Your task to perform on an android device: Play the last video I watched on Youtube Image 0: 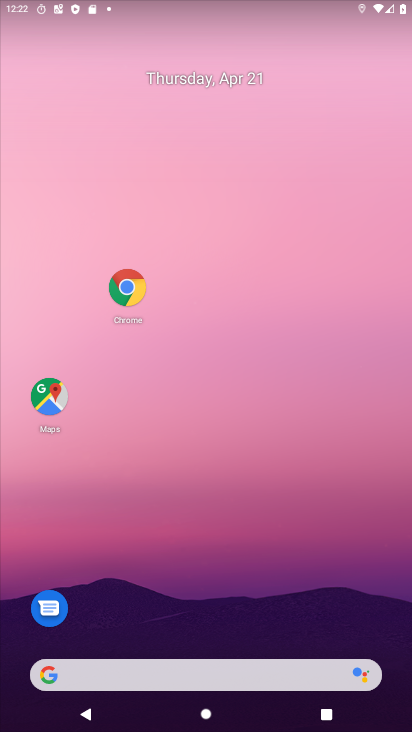
Step 0: drag from (216, 380) to (150, 74)
Your task to perform on an android device: Play the last video I watched on Youtube Image 1: 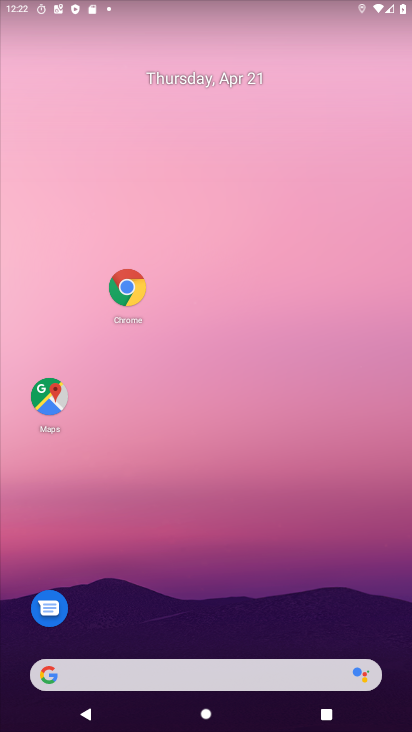
Step 1: drag from (337, 642) to (352, 28)
Your task to perform on an android device: Play the last video I watched on Youtube Image 2: 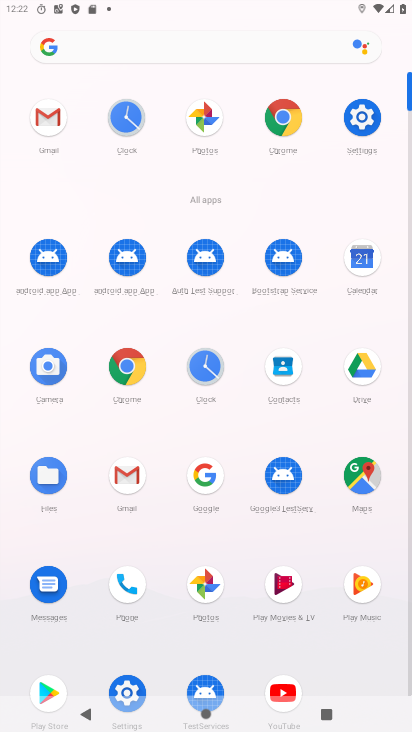
Step 2: drag from (321, 652) to (326, 453)
Your task to perform on an android device: Play the last video I watched on Youtube Image 3: 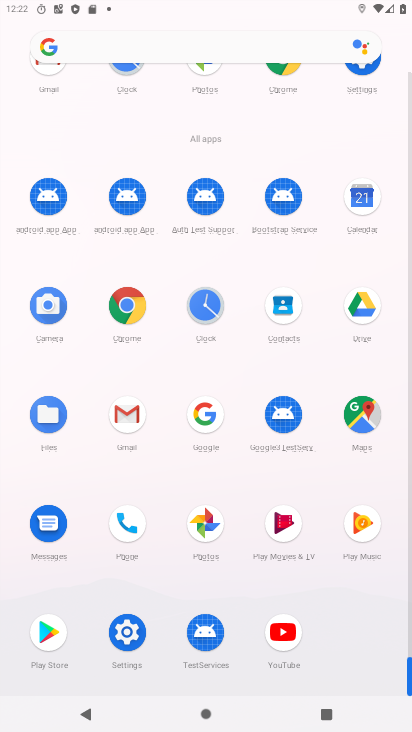
Step 3: click (281, 640)
Your task to perform on an android device: Play the last video I watched on Youtube Image 4: 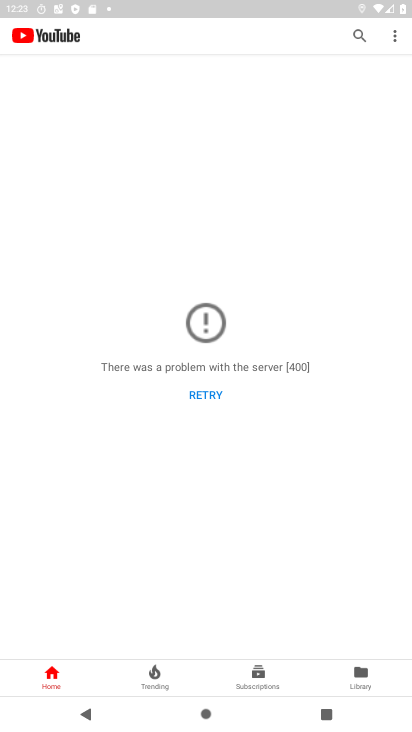
Step 4: click (352, 667)
Your task to perform on an android device: Play the last video I watched on Youtube Image 5: 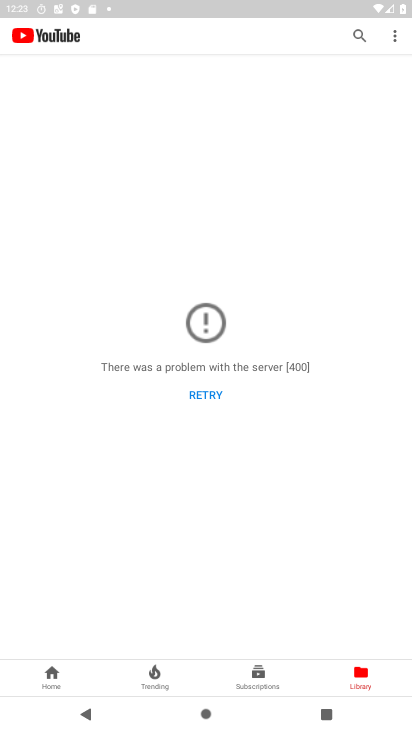
Step 5: click (199, 391)
Your task to perform on an android device: Play the last video I watched on Youtube Image 6: 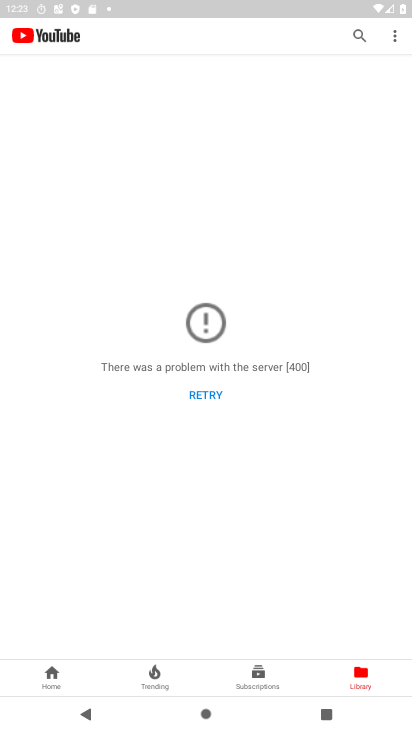
Step 6: click (202, 391)
Your task to perform on an android device: Play the last video I watched on Youtube Image 7: 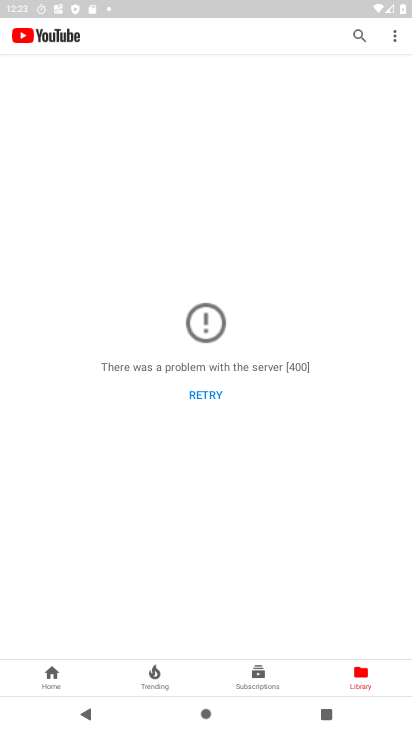
Step 7: task complete